Your task to perform on an android device: toggle data saver in the chrome app Image 0: 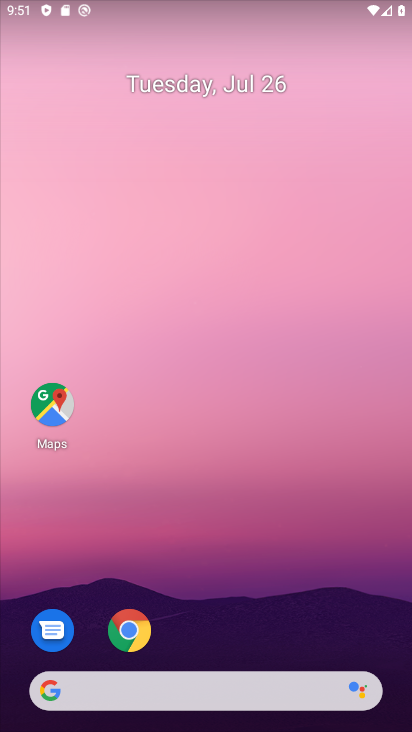
Step 0: click (134, 630)
Your task to perform on an android device: toggle data saver in the chrome app Image 1: 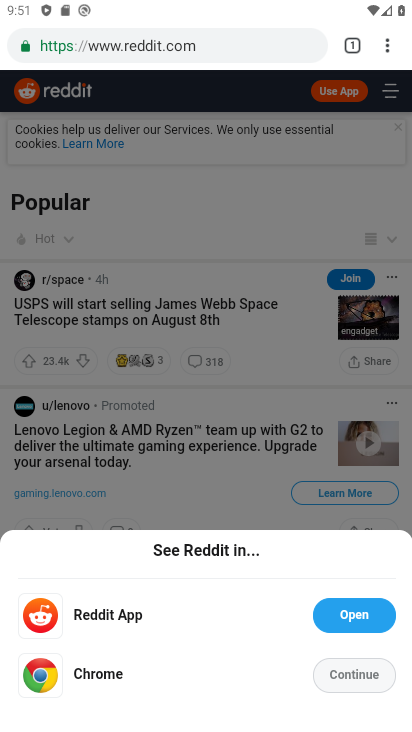
Step 1: click (383, 46)
Your task to perform on an android device: toggle data saver in the chrome app Image 2: 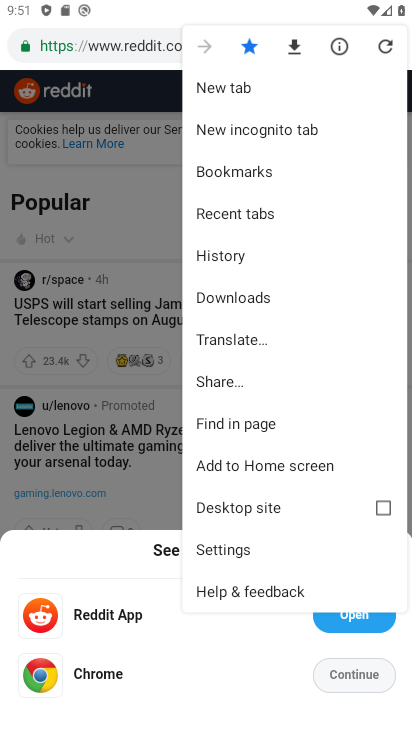
Step 2: click (224, 546)
Your task to perform on an android device: toggle data saver in the chrome app Image 3: 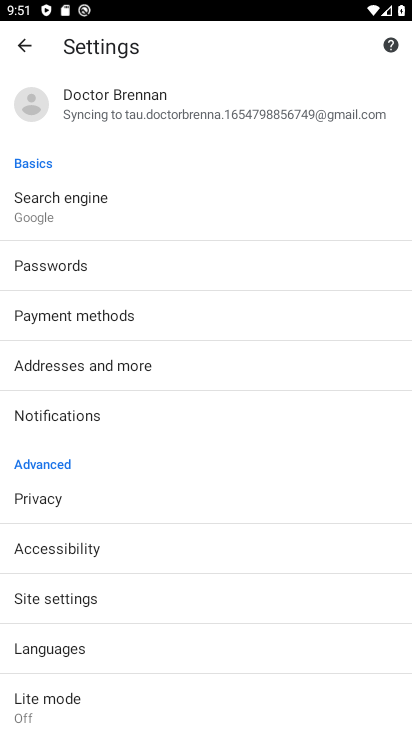
Step 3: drag from (137, 649) to (169, 365)
Your task to perform on an android device: toggle data saver in the chrome app Image 4: 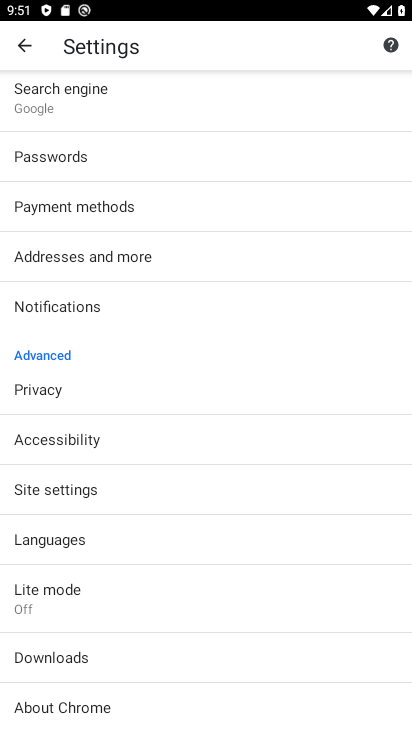
Step 4: click (57, 584)
Your task to perform on an android device: toggle data saver in the chrome app Image 5: 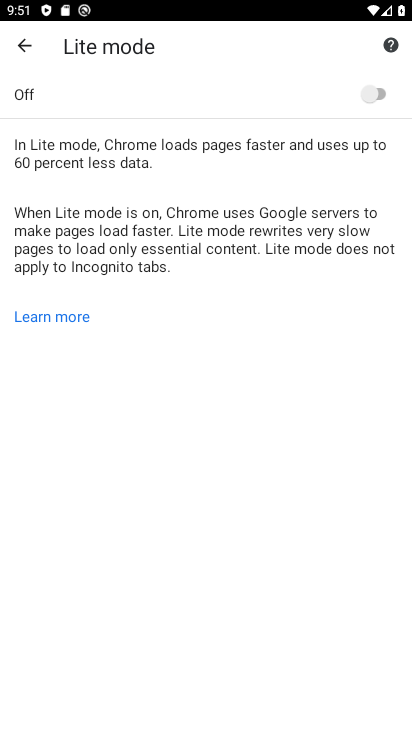
Step 5: click (382, 94)
Your task to perform on an android device: toggle data saver in the chrome app Image 6: 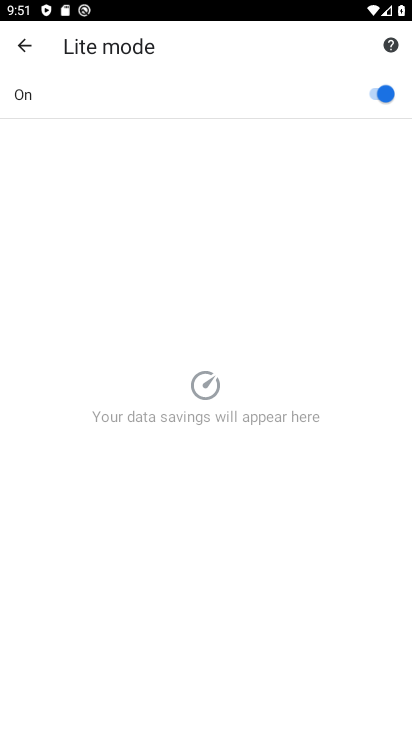
Step 6: task complete